Your task to perform on an android device: Open maps Image 0: 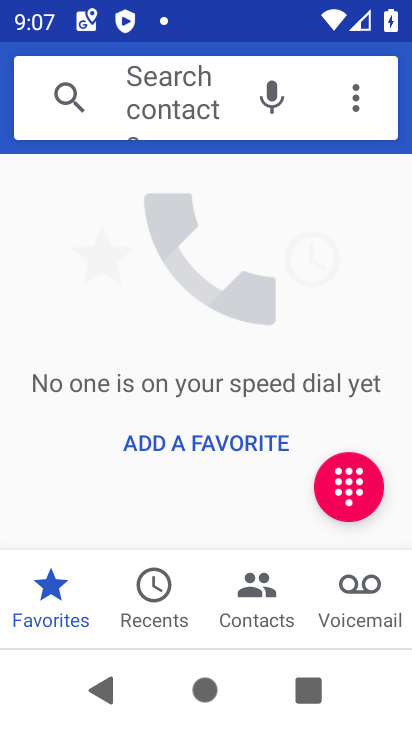
Step 0: press home button
Your task to perform on an android device: Open maps Image 1: 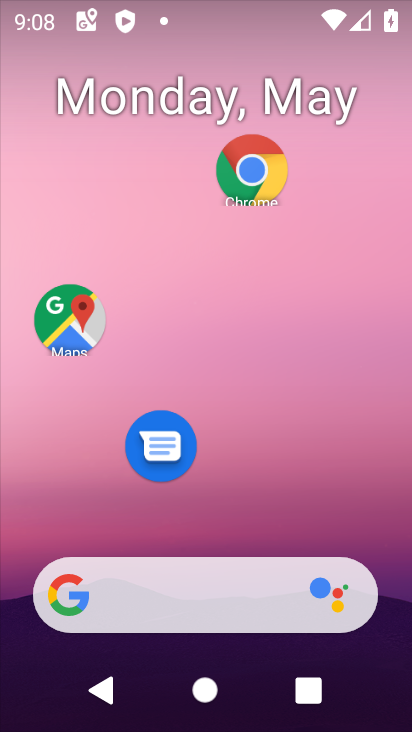
Step 1: click (72, 316)
Your task to perform on an android device: Open maps Image 2: 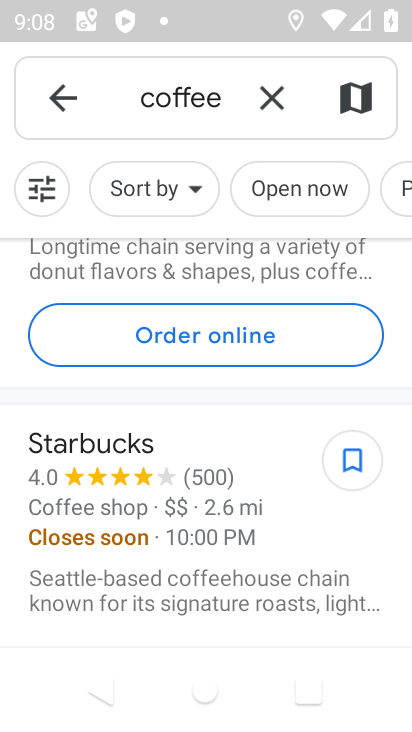
Step 2: click (268, 84)
Your task to perform on an android device: Open maps Image 3: 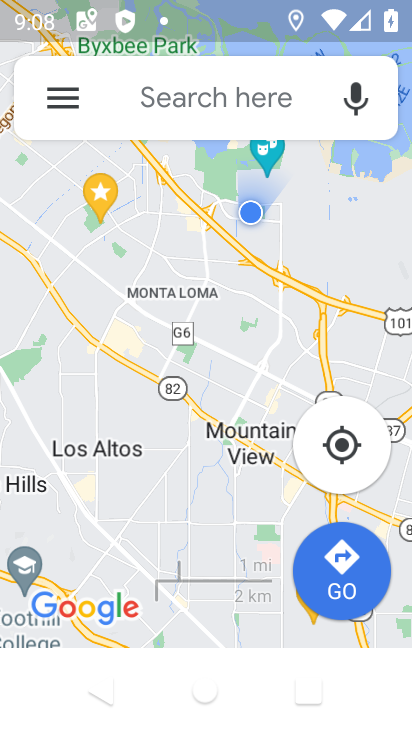
Step 3: task complete